Your task to perform on an android device: Go to battery settings Image 0: 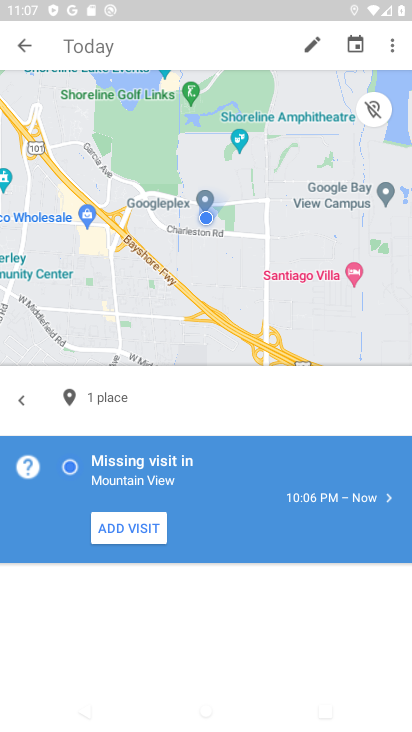
Step 0: press home button
Your task to perform on an android device: Go to battery settings Image 1: 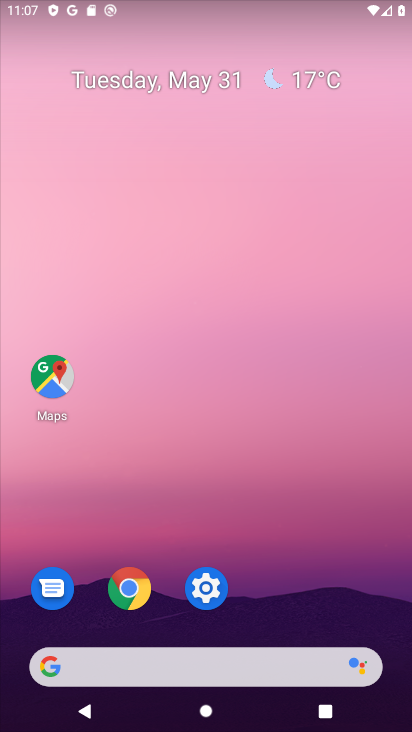
Step 1: click (218, 582)
Your task to perform on an android device: Go to battery settings Image 2: 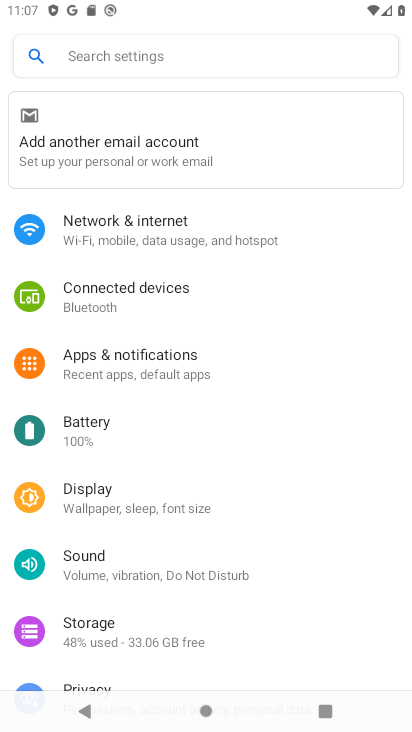
Step 2: click (122, 428)
Your task to perform on an android device: Go to battery settings Image 3: 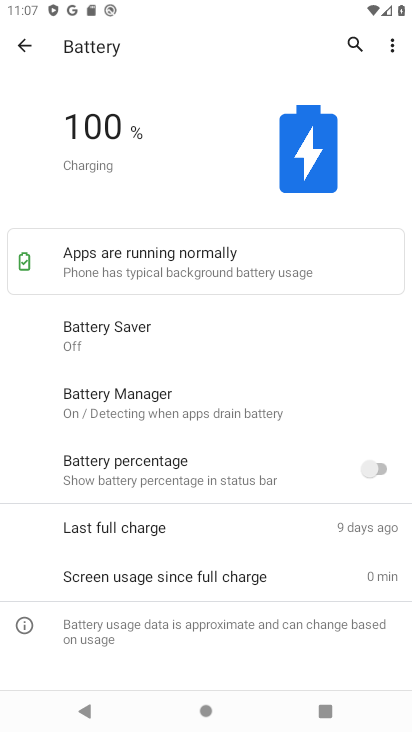
Step 3: task complete